Your task to perform on an android device: open app "WhatsApp Messenger" (install if not already installed) Image 0: 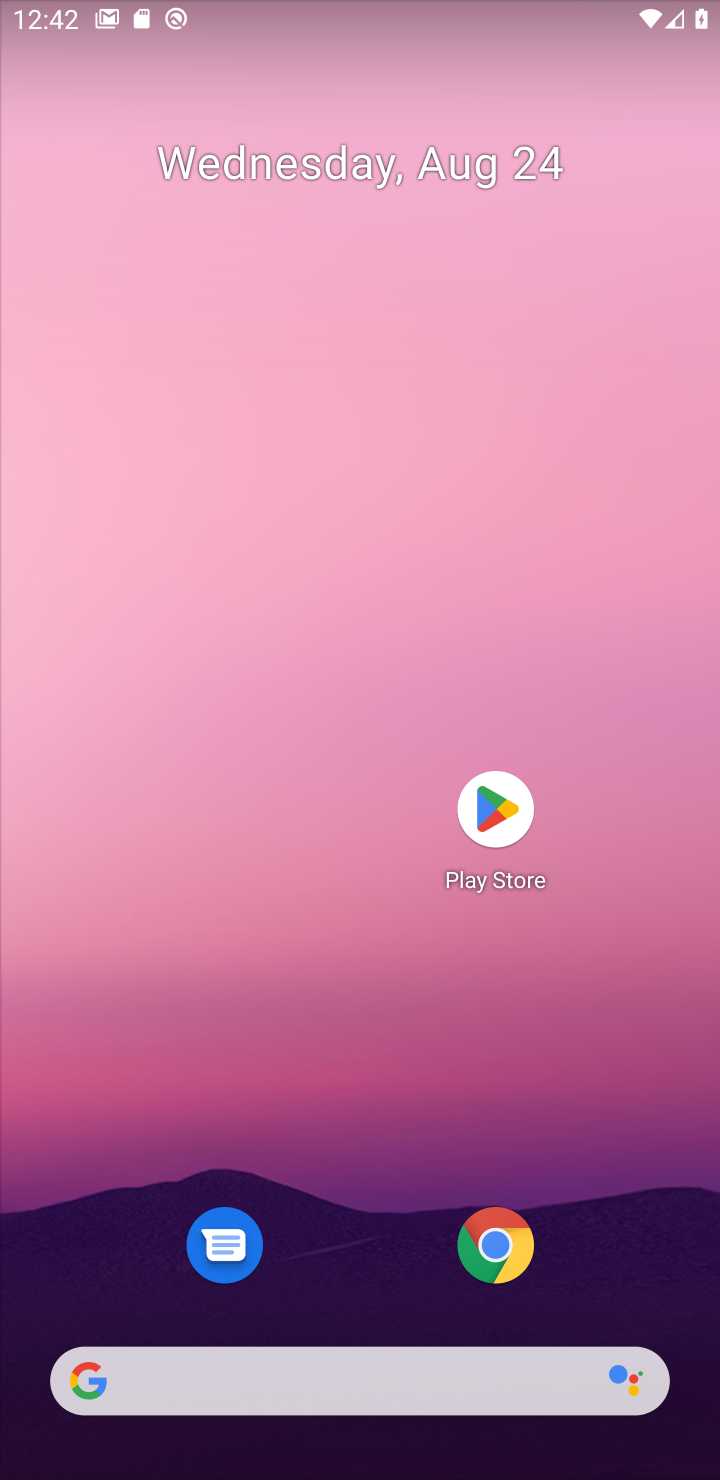
Step 0: click (509, 804)
Your task to perform on an android device: open app "WhatsApp Messenger" (install if not already installed) Image 1: 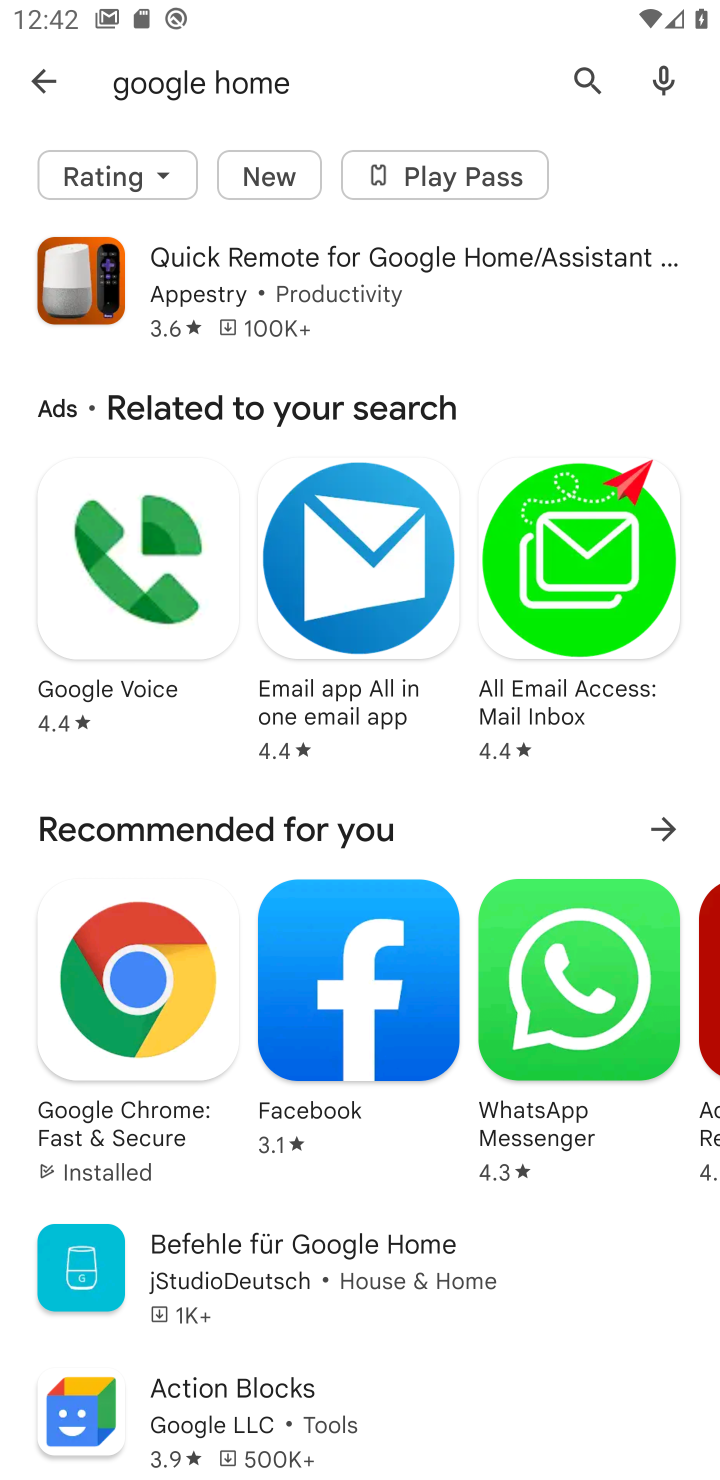
Step 1: click (577, 77)
Your task to perform on an android device: open app "WhatsApp Messenger" (install if not already installed) Image 2: 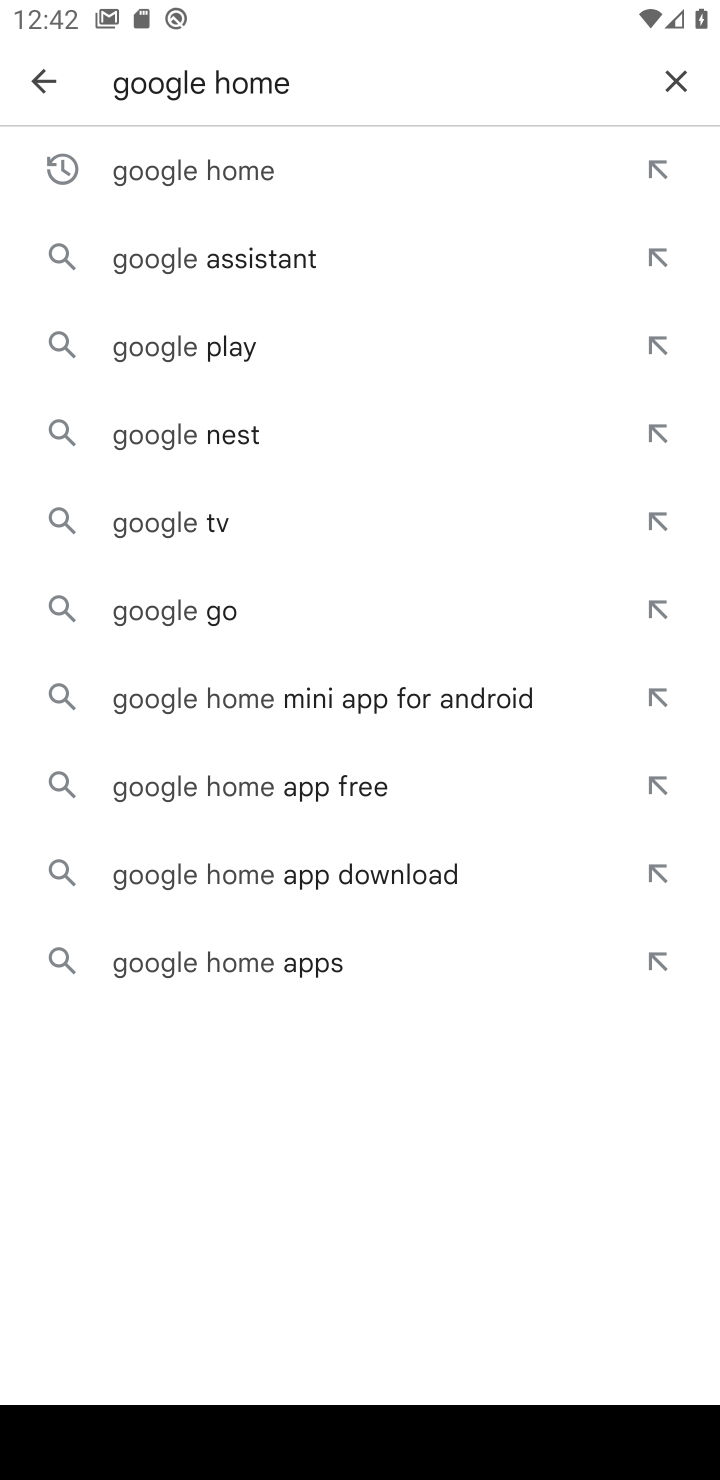
Step 2: click (678, 79)
Your task to perform on an android device: open app "WhatsApp Messenger" (install if not already installed) Image 3: 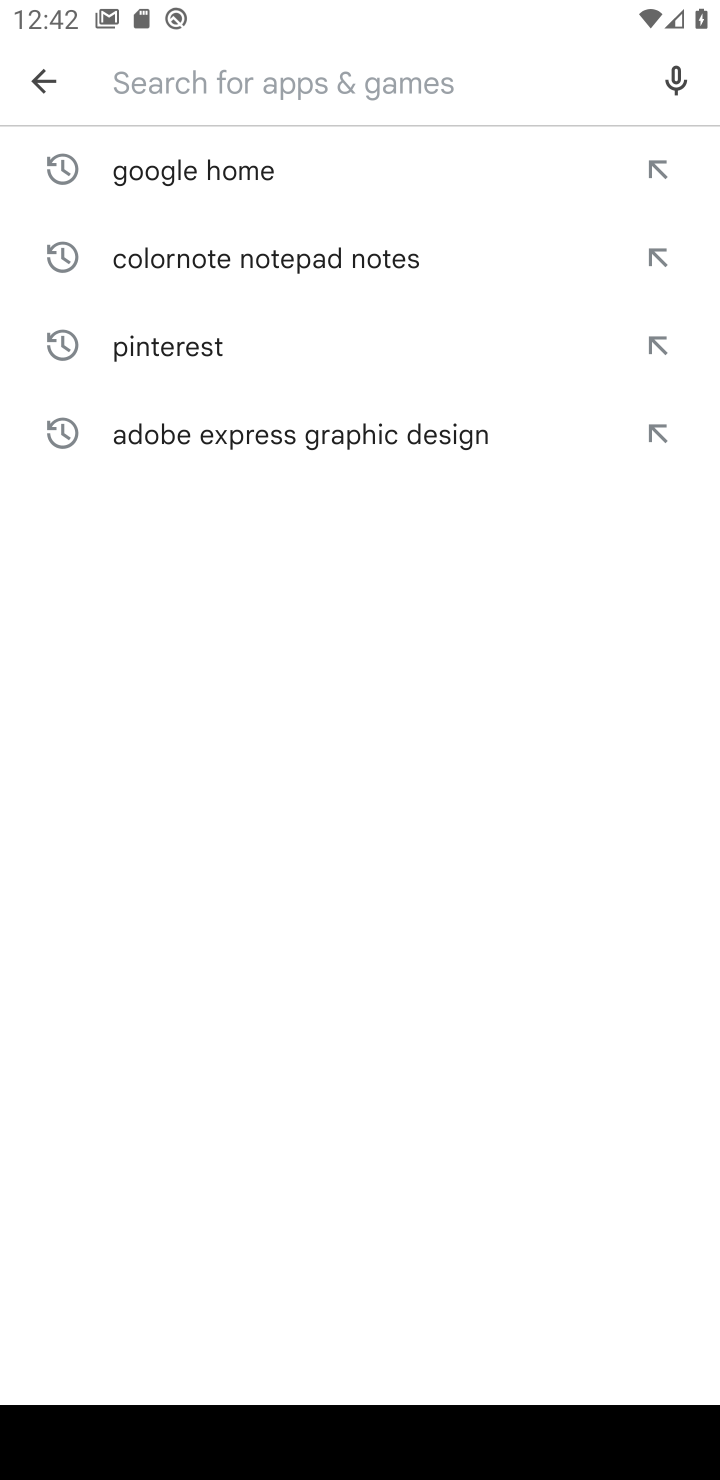
Step 3: type "WhatsApp Messenger"
Your task to perform on an android device: open app "WhatsApp Messenger" (install if not already installed) Image 4: 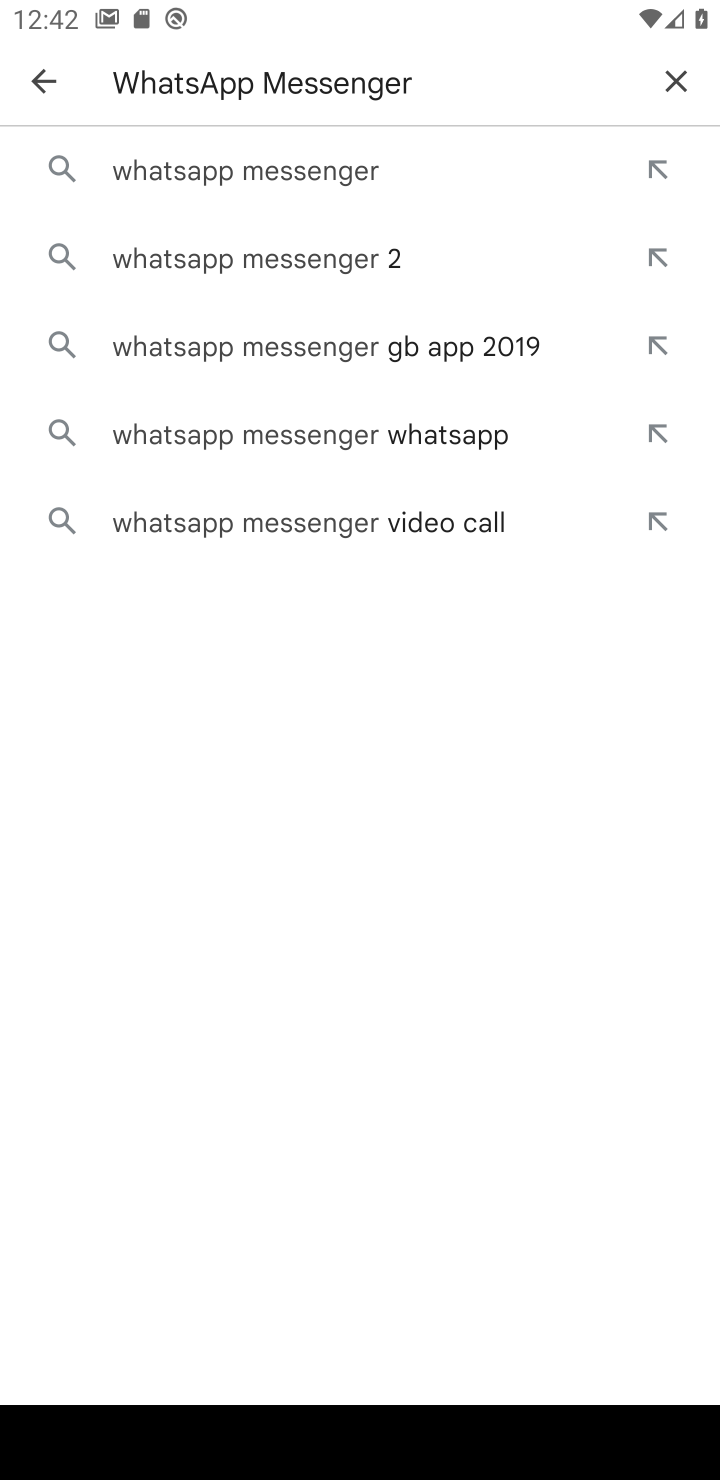
Step 4: click (228, 163)
Your task to perform on an android device: open app "WhatsApp Messenger" (install if not already installed) Image 5: 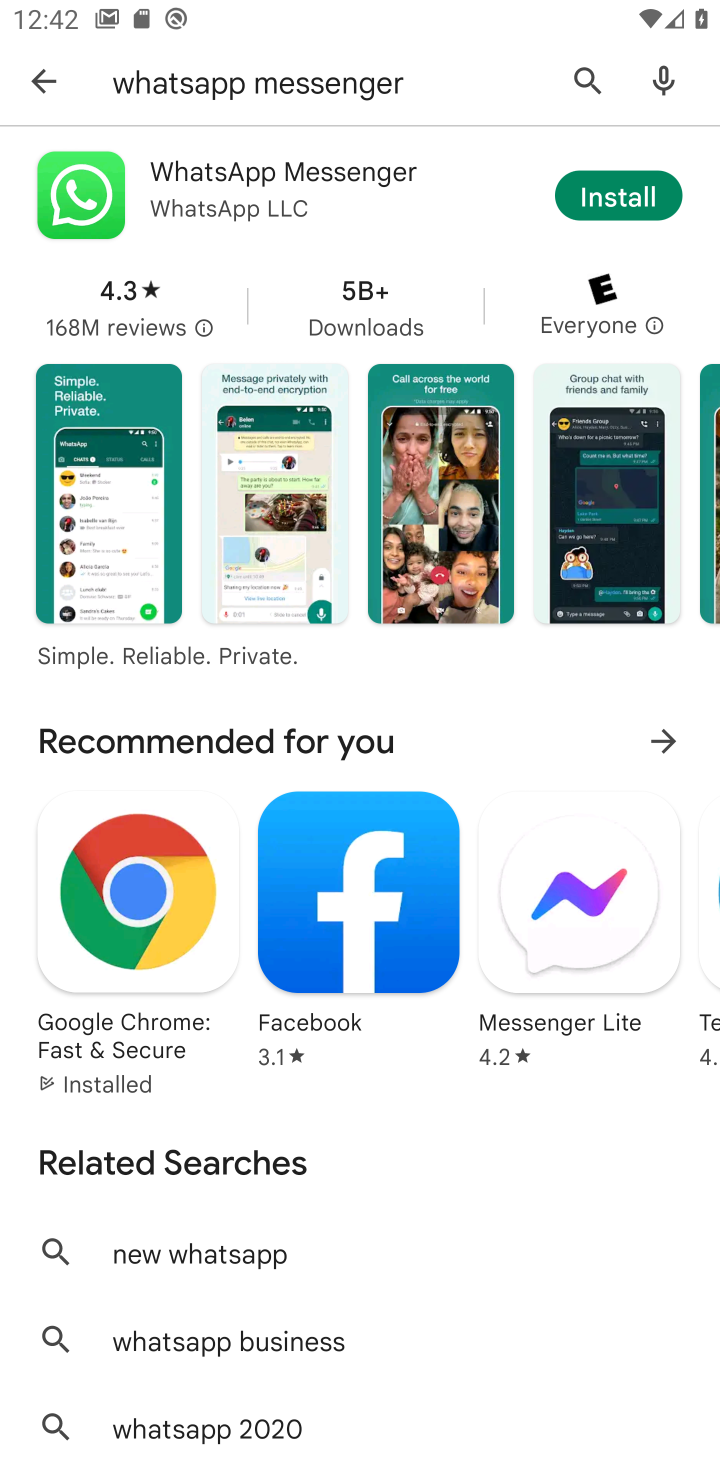
Step 5: click (642, 199)
Your task to perform on an android device: open app "WhatsApp Messenger" (install if not already installed) Image 6: 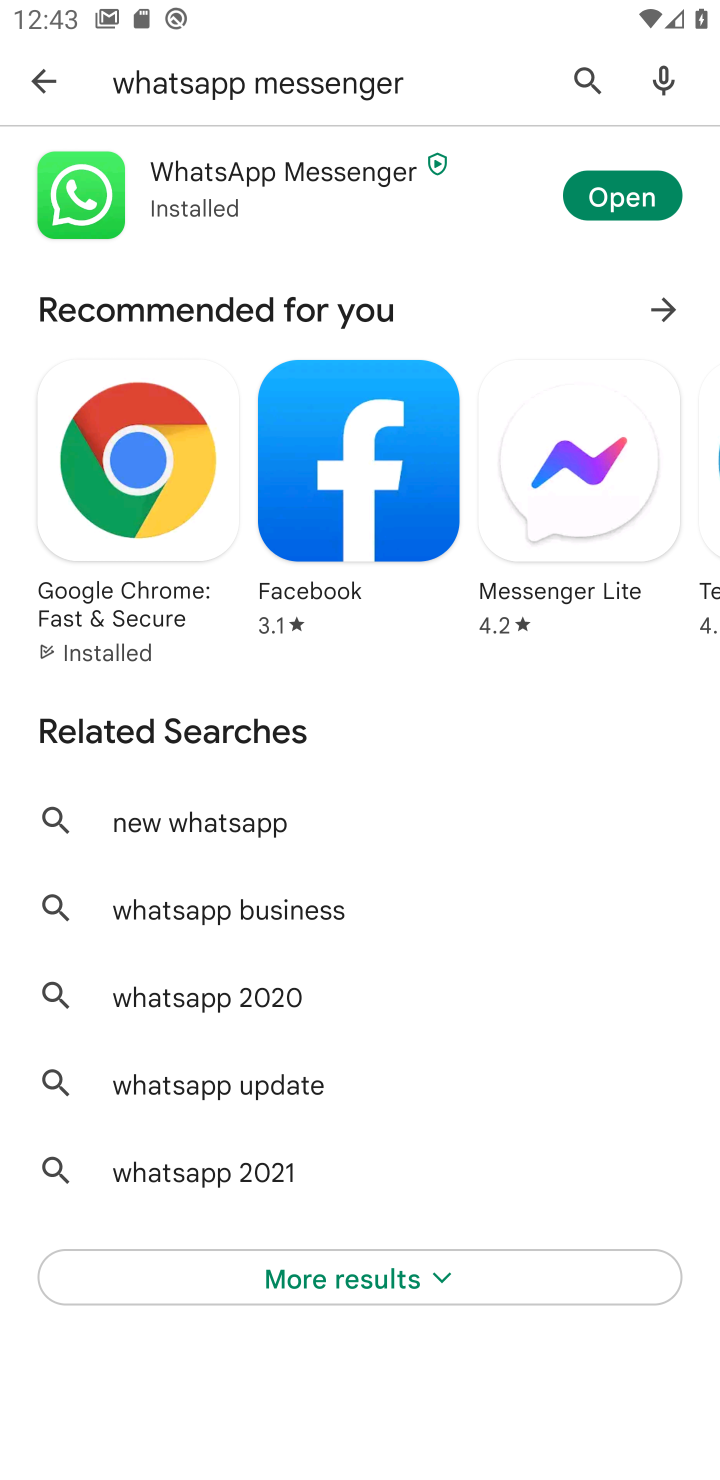
Step 6: click (618, 195)
Your task to perform on an android device: open app "WhatsApp Messenger" (install if not already installed) Image 7: 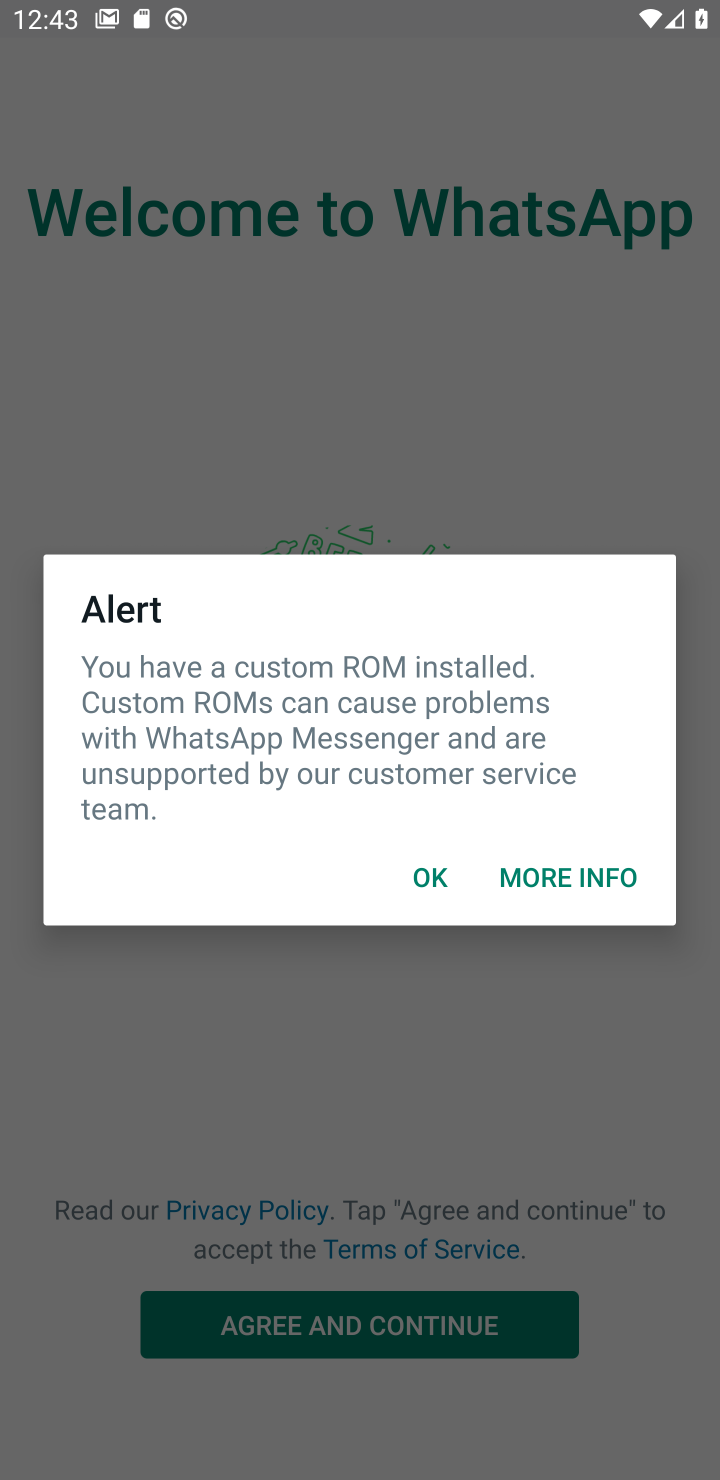
Step 7: task complete